Your task to perform on an android device: What is the news today? Image 0: 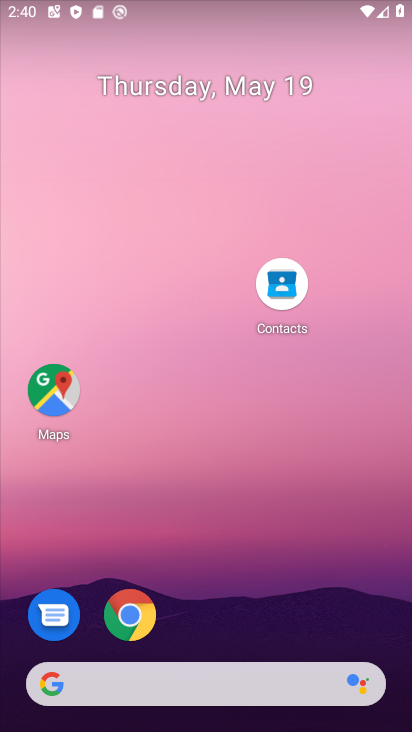
Step 0: drag from (237, 439) to (266, 191)
Your task to perform on an android device: What is the news today? Image 1: 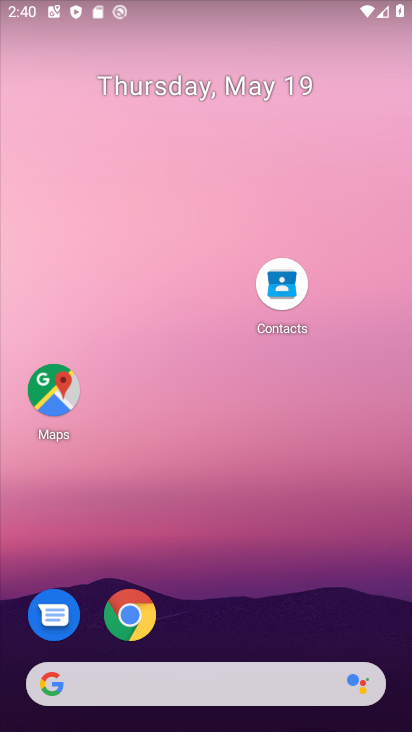
Step 1: drag from (228, 619) to (223, 264)
Your task to perform on an android device: What is the news today? Image 2: 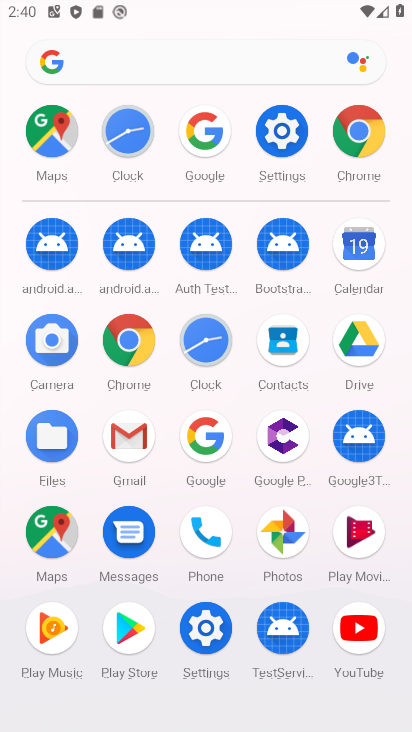
Step 2: click (194, 457)
Your task to perform on an android device: What is the news today? Image 3: 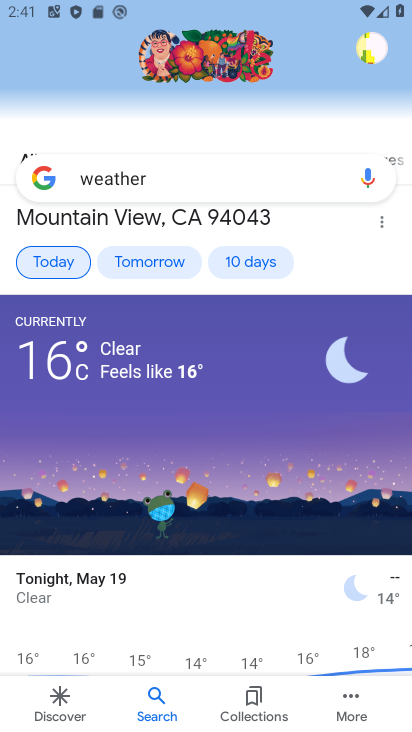
Step 3: task complete